Your task to perform on an android device: What is the recent news? Image 0: 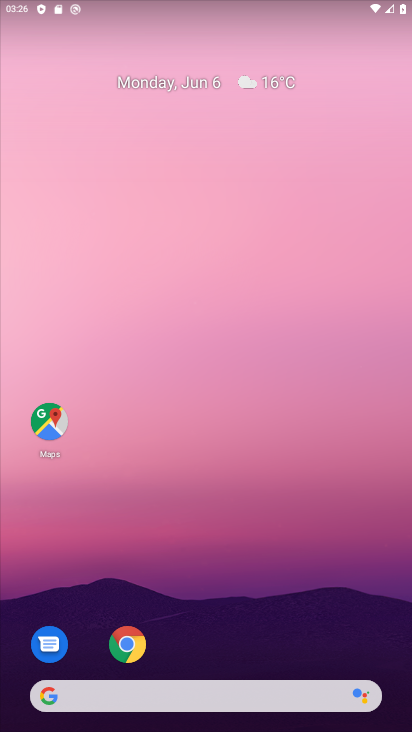
Step 0: drag from (1, 282) to (394, 269)
Your task to perform on an android device: What is the recent news? Image 1: 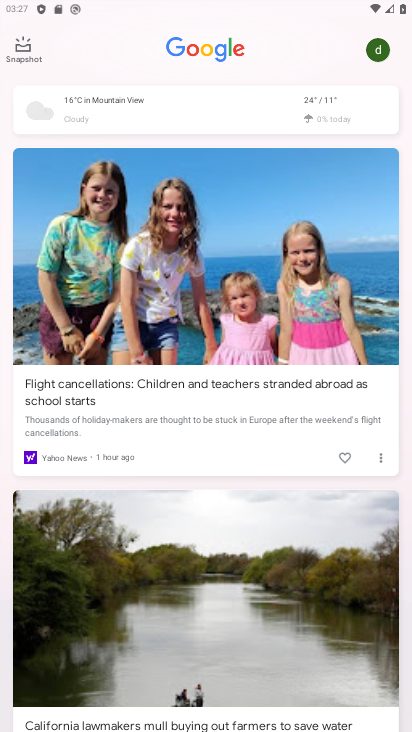
Step 1: task complete